Your task to perform on an android device: move an email to a new category in the gmail app Image 0: 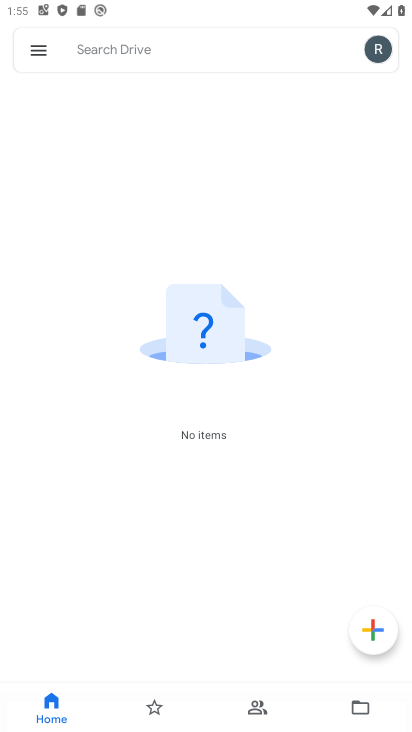
Step 0: task complete